Your task to perform on an android device: Go to battery settings Image 0: 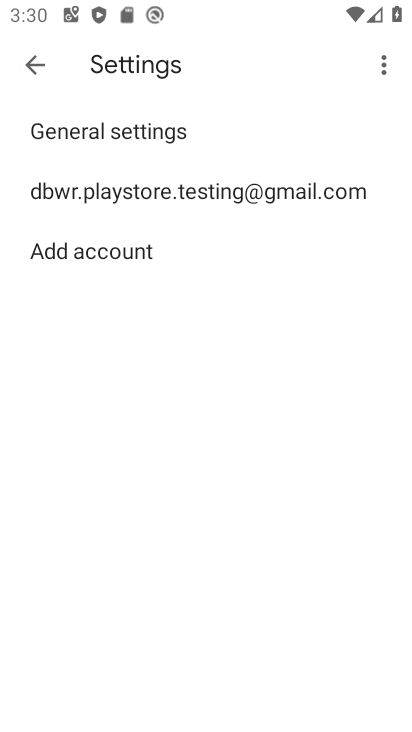
Step 0: press home button
Your task to perform on an android device: Go to battery settings Image 1: 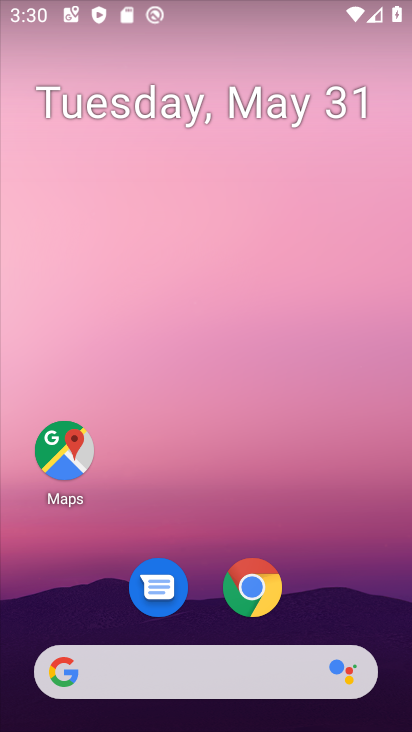
Step 1: drag from (314, 582) to (319, 100)
Your task to perform on an android device: Go to battery settings Image 2: 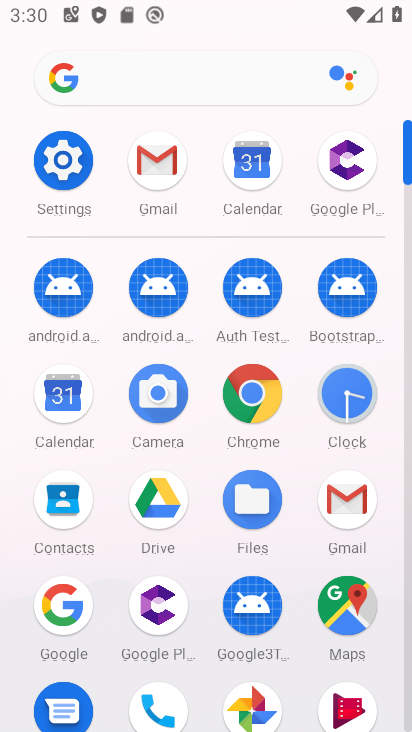
Step 2: click (50, 167)
Your task to perform on an android device: Go to battery settings Image 3: 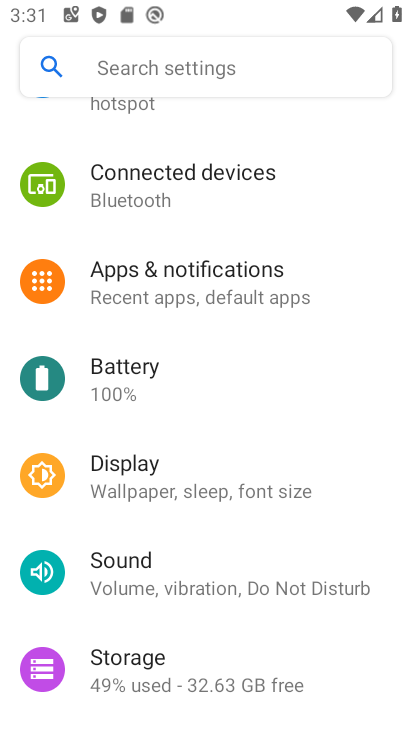
Step 3: click (195, 383)
Your task to perform on an android device: Go to battery settings Image 4: 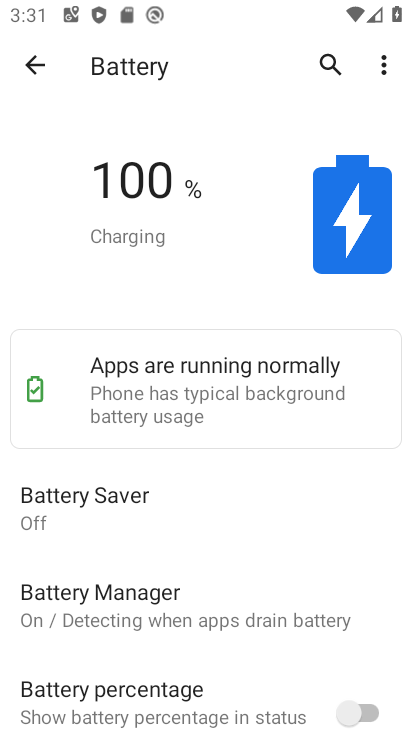
Step 4: task complete